Your task to perform on an android device: Turn on the flashlight Image 0: 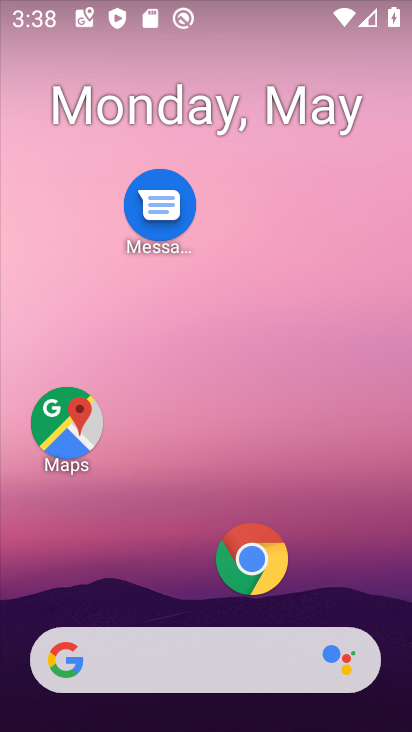
Step 0: drag from (130, 558) to (117, 87)
Your task to perform on an android device: Turn on the flashlight Image 1: 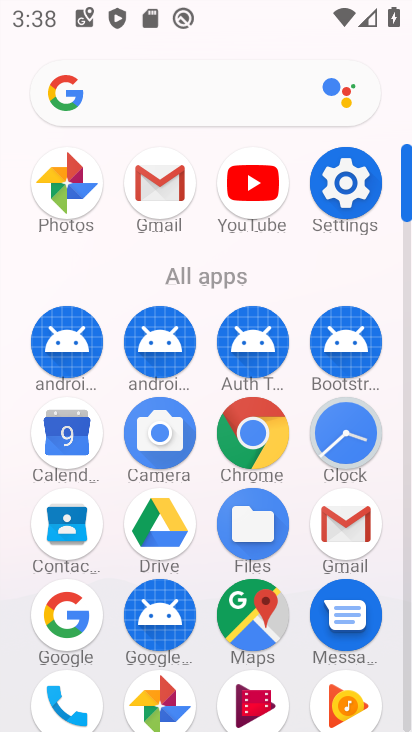
Step 1: click (352, 182)
Your task to perform on an android device: Turn on the flashlight Image 2: 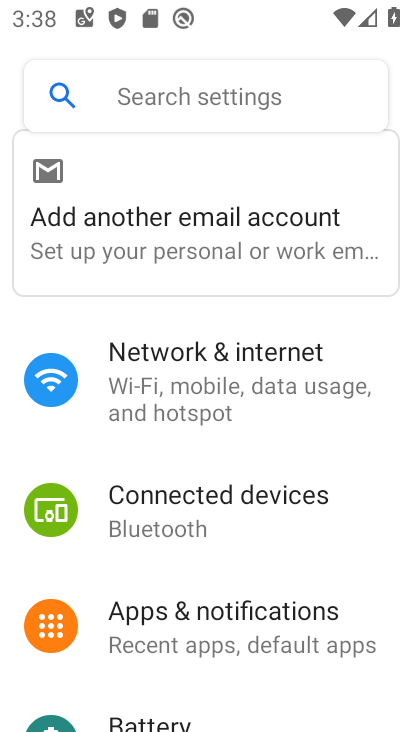
Step 2: drag from (264, 357) to (253, 213)
Your task to perform on an android device: Turn on the flashlight Image 3: 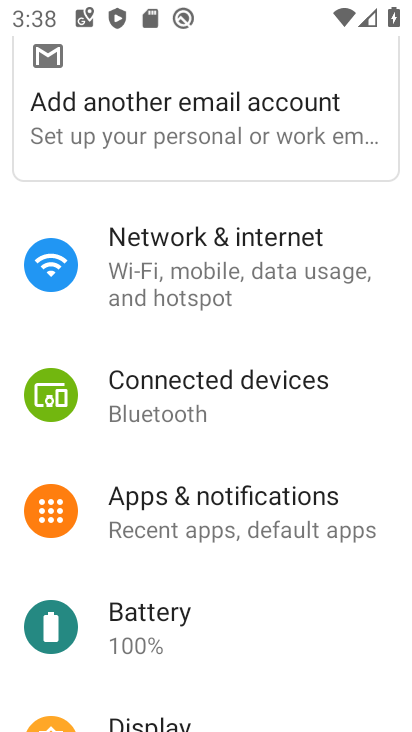
Step 3: drag from (251, 613) to (259, 274)
Your task to perform on an android device: Turn on the flashlight Image 4: 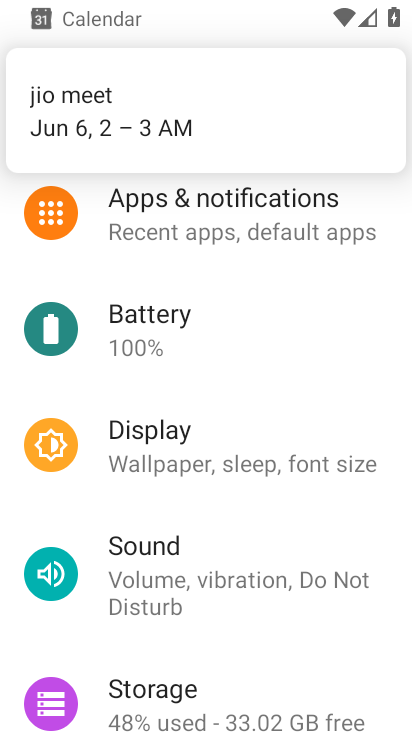
Step 4: click (251, 460)
Your task to perform on an android device: Turn on the flashlight Image 5: 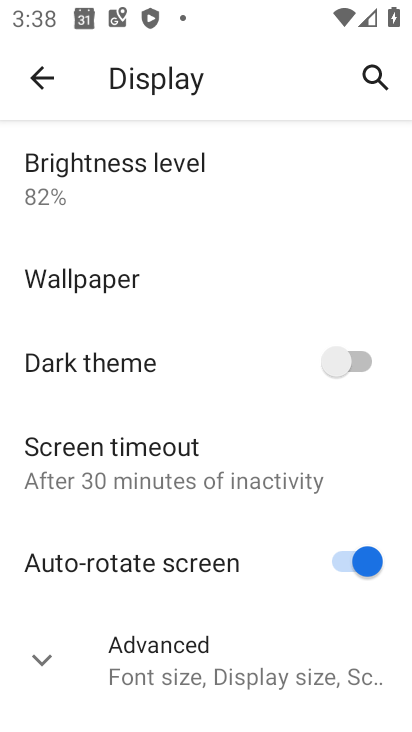
Step 5: task complete